Your task to perform on an android device: turn off airplane mode Image 0: 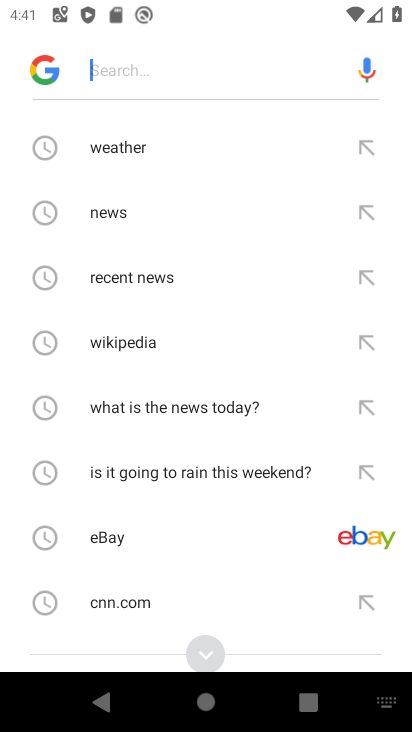
Step 0: press home button
Your task to perform on an android device: turn off airplane mode Image 1: 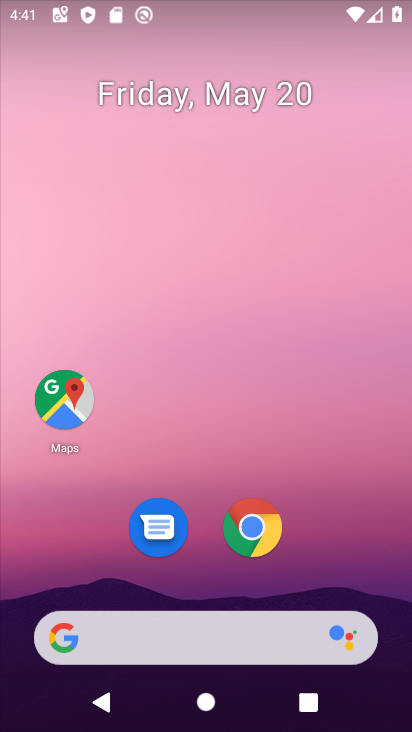
Step 1: drag from (149, 604) to (235, 69)
Your task to perform on an android device: turn off airplane mode Image 2: 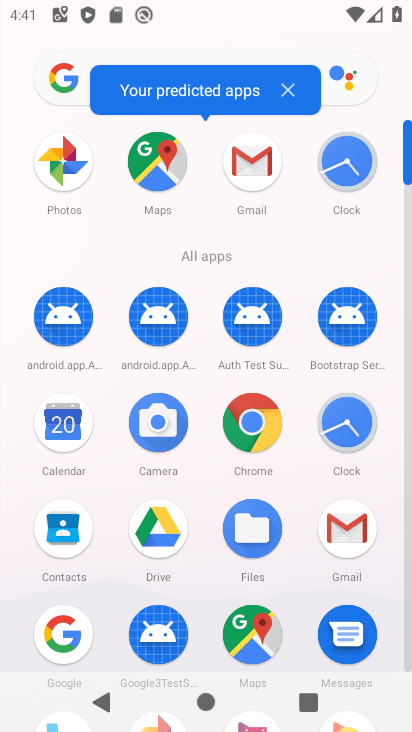
Step 2: drag from (211, 638) to (265, 204)
Your task to perform on an android device: turn off airplane mode Image 3: 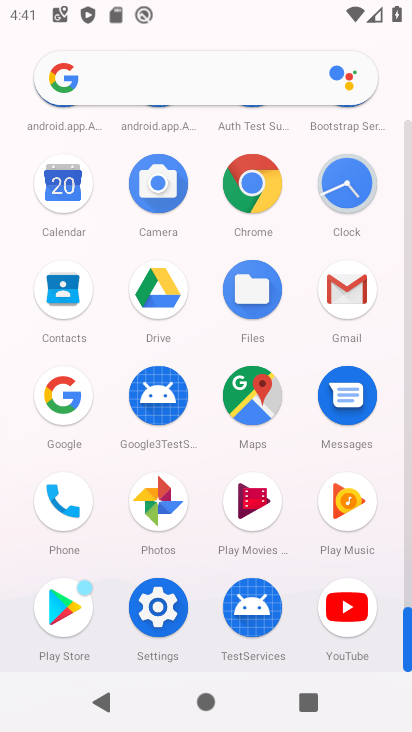
Step 3: click (153, 610)
Your task to perform on an android device: turn off airplane mode Image 4: 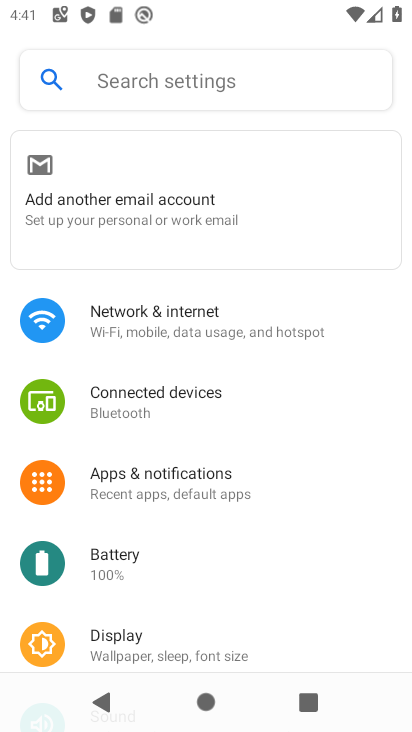
Step 4: click (163, 318)
Your task to perform on an android device: turn off airplane mode Image 5: 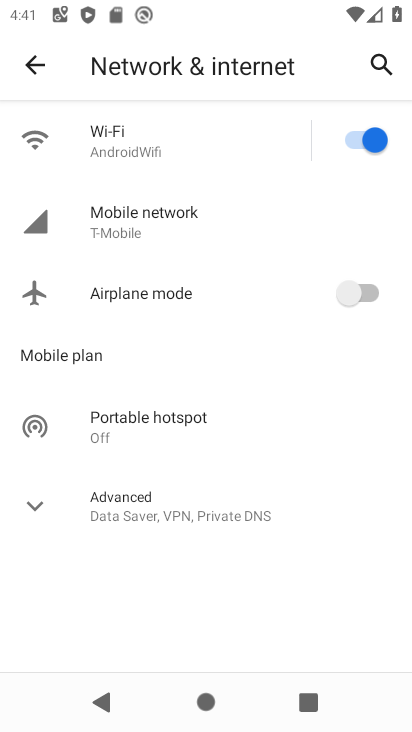
Step 5: task complete